Your task to perform on an android device: Open the stopwatch Image 0: 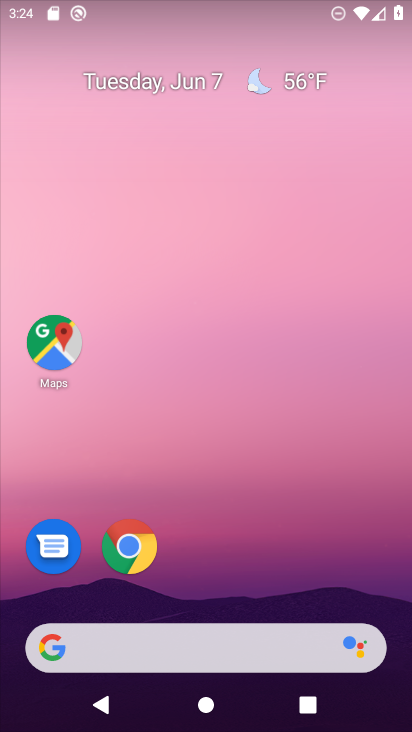
Step 0: drag from (249, 510) to (230, 23)
Your task to perform on an android device: Open the stopwatch Image 1: 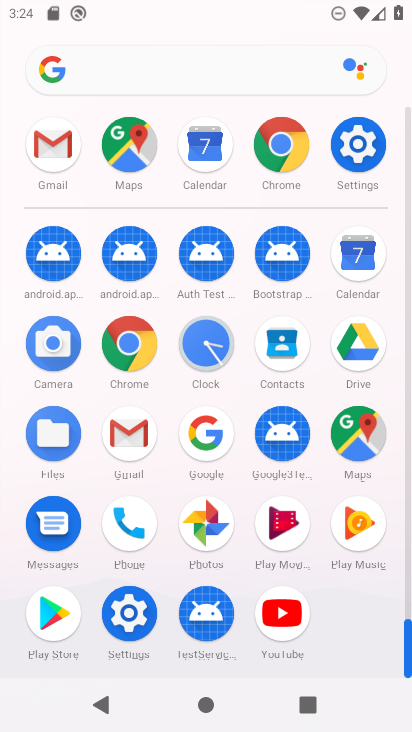
Step 1: drag from (10, 559) to (15, 226)
Your task to perform on an android device: Open the stopwatch Image 2: 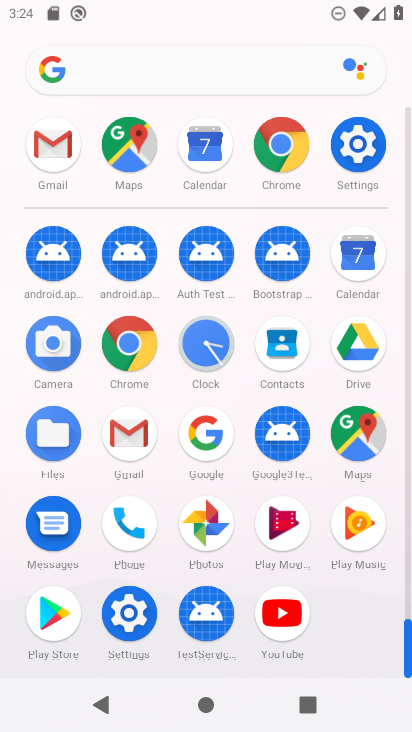
Step 2: click (199, 343)
Your task to perform on an android device: Open the stopwatch Image 3: 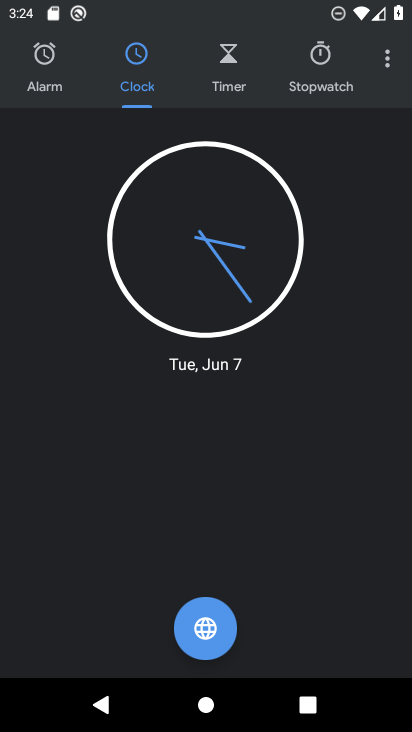
Step 3: click (308, 59)
Your task to perform on an android device: Open the stopwatch Image 4: 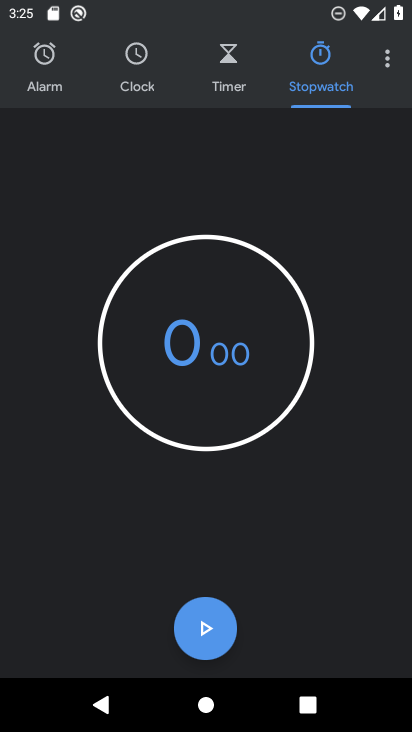
Step 4: click (212, 628)
Your task to perform on an android device: Open the stopwatch Image 5: 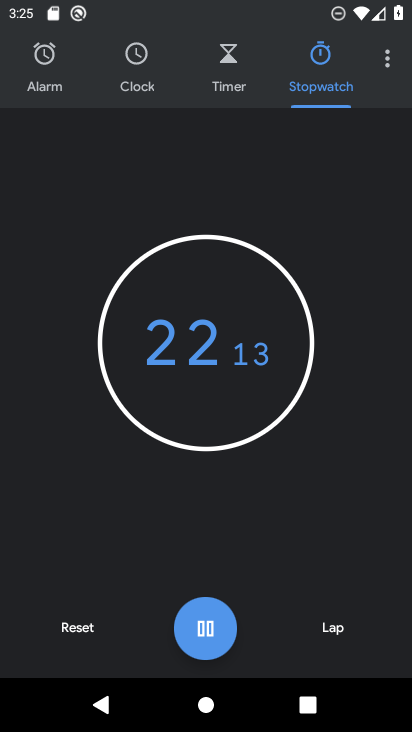
Step 5: task complete